Your task to perform on an android device: toggle show notifications on the lock screen Image 0: 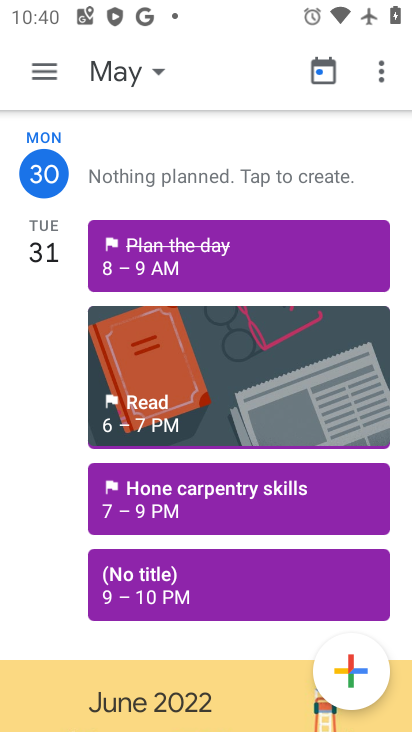
Step 0: press home button
Your task to perform on an android device: toggle show notifications on the lock screen Image 1: 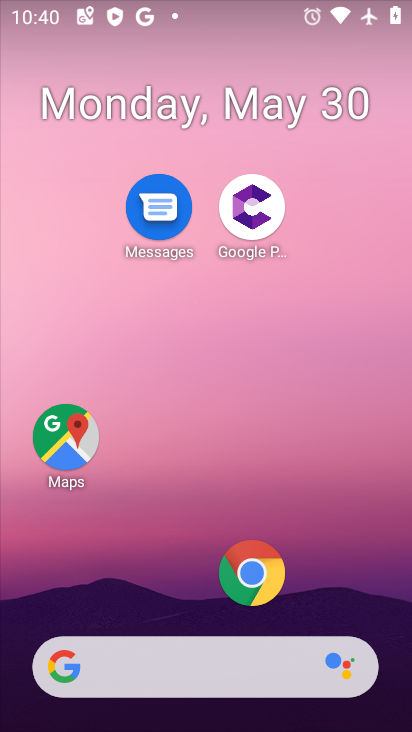
Step 1: drag from (217, 609) to (369, 72)
Your task to perform on an android device: toggle show notifications on the lock screen Image 2: 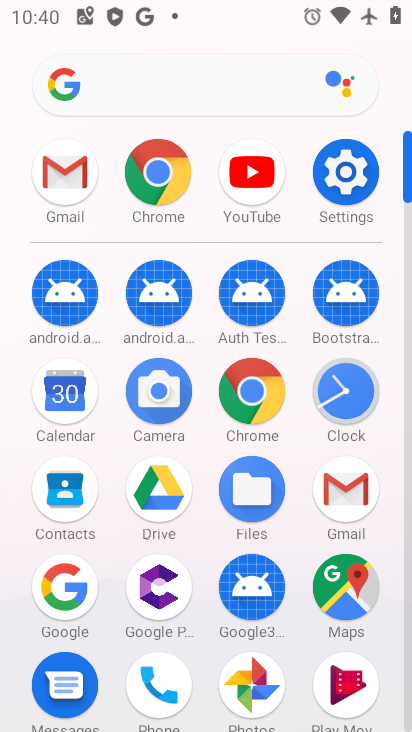
Step 2: click (357, 191)
Your task to perform on an android device: toggle show notifications on the lock screen Image 3: 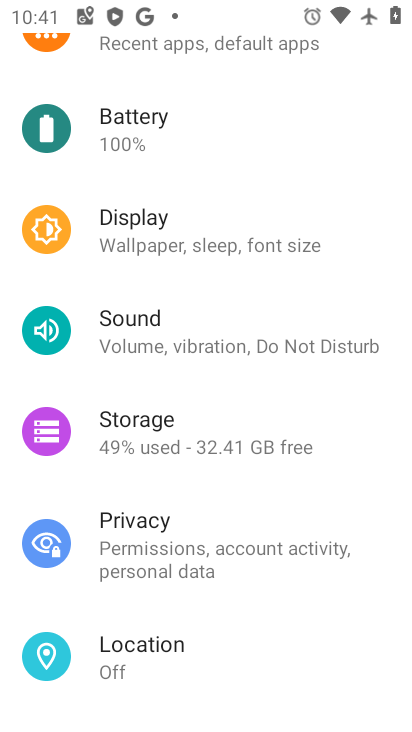
Step 3: drag from (203, 265) to (129, 730)
Your task to perform on an android device: toggle show notifications on the lock screen Image 4: 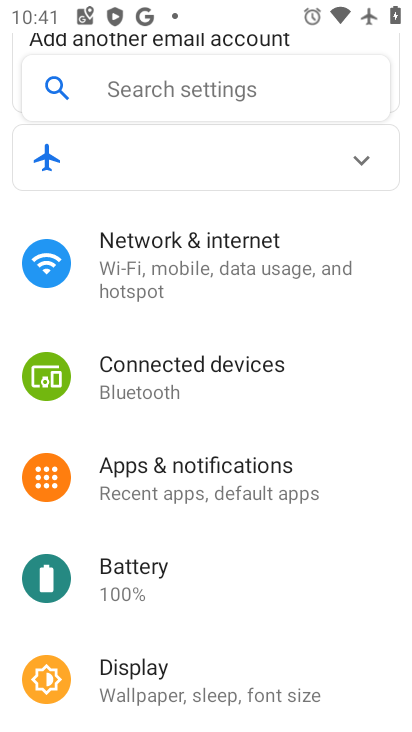
Step 4: click (203, 495)
Your task to perform on an android device: toggle show notifications on the lock screen Image 5: 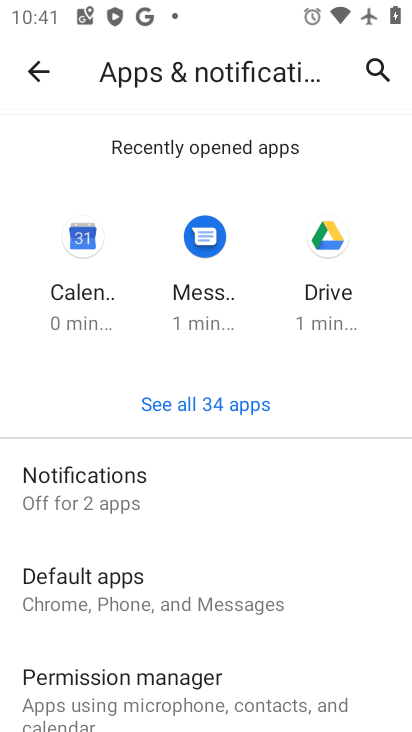
Step 5: click (138, 498)
Your task to perform on an android device: toggle show notifications on the lock screen Image 6: 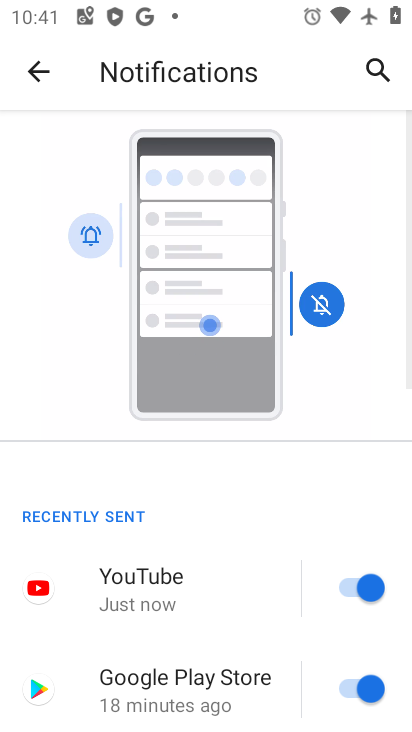
Step 6: drag from (185, 548) to (307, 180)
Your task to perform on an android device: toggle show notifications on the lock screen Image 7: 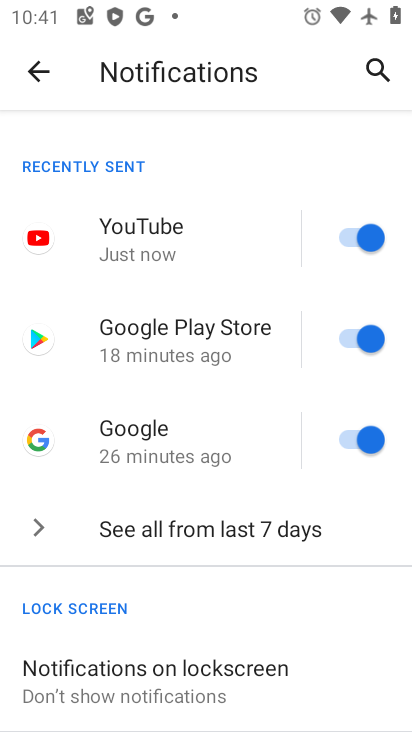
Step 7: click (197, 673)
Your task to perform on an android device: toggle show notifications on the lock screen Image 8: 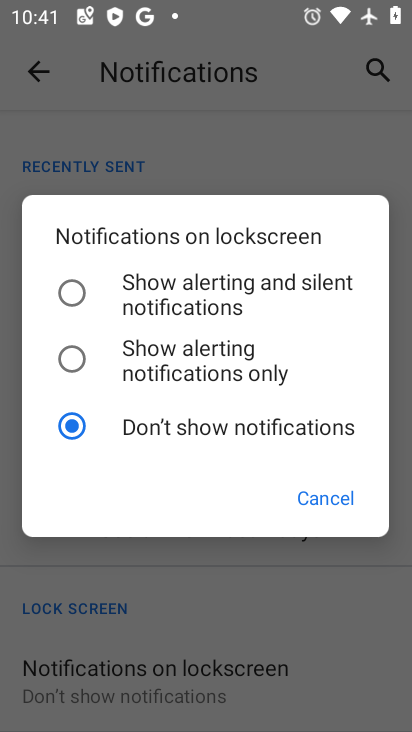
Step 8: click (137, 282)
Your task to perform on an android device: toggle show notifications on the lock screen Image 9: 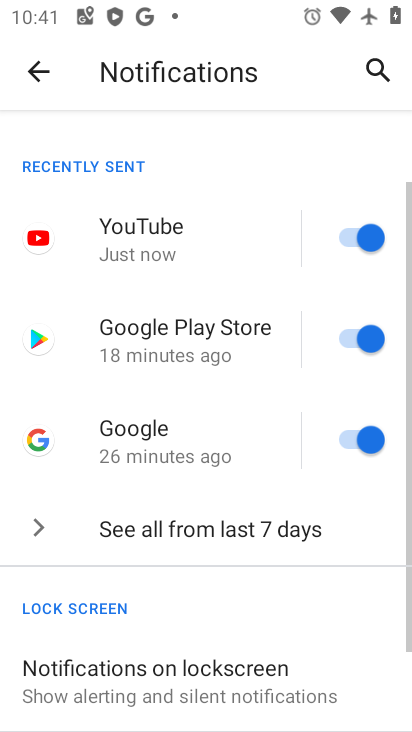
Step 9: task complete